Your task to perform on an android device: empty trash in the gmail app Image 0: 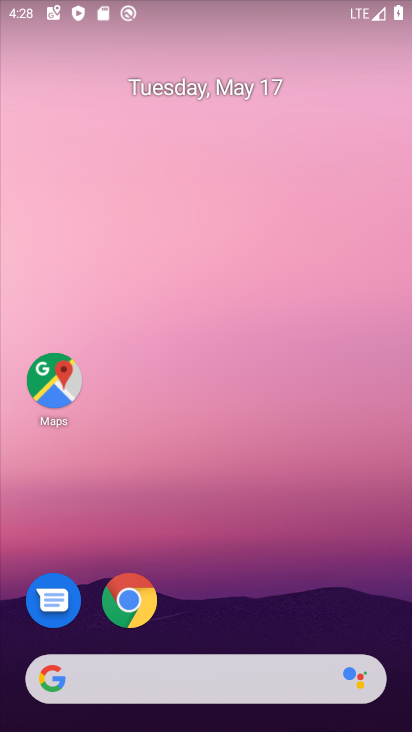
Step 0: drag from (381, 639) to (343, 52)
Your task to perform on an android device: empty trash in the gmail app Image 1: 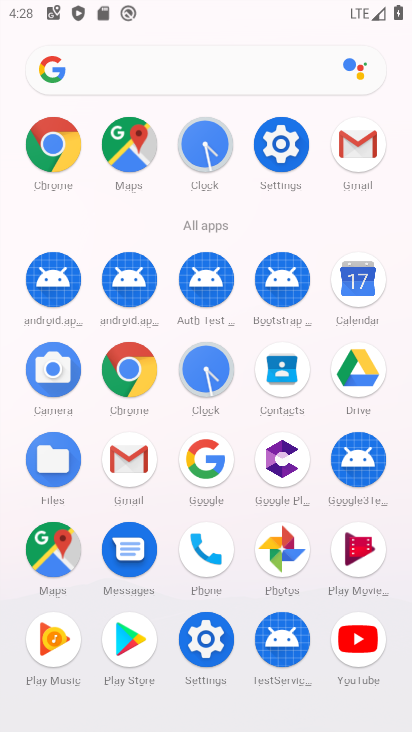
Step 1: click (130, 455)
Your task to perform on an android device: empty trash in the gmail app Image 2: 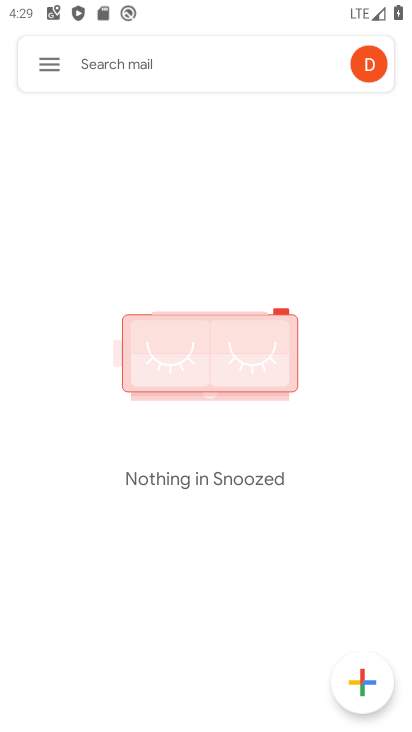
Step 2: click (49, 69)
Your task to perform on an android device: empty trash in the gmail app Image 3: 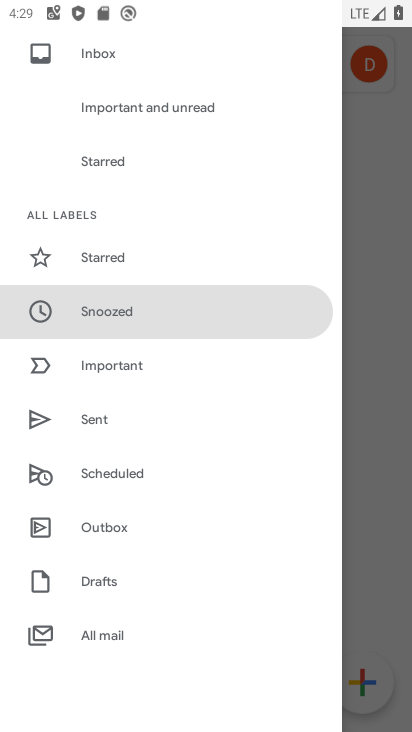
Step 3: drag from (144, 559) to (190, 177)
Your task to perform on an android device: empty trash in the gmail app Image 4: 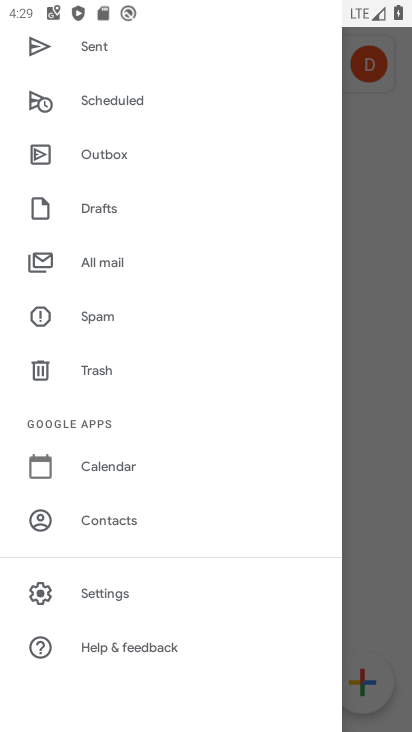
Step 4: click (99, 363)
Your task to perform on an android device: empty trash in the gmail app Image 5: 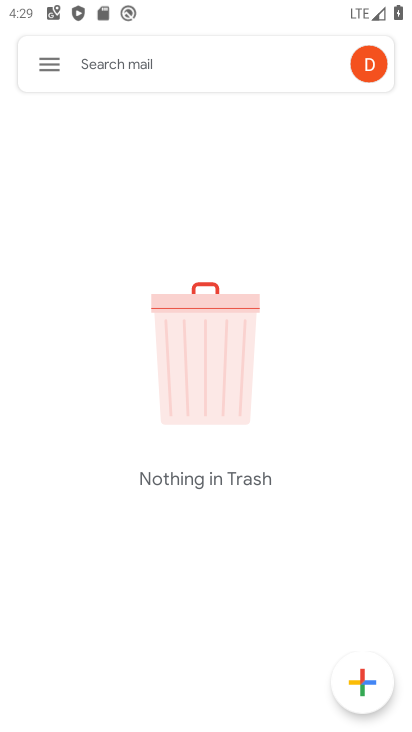
Step 5: task complete